Your task to perform on an android device: change the clock display to show seconds Image 0: 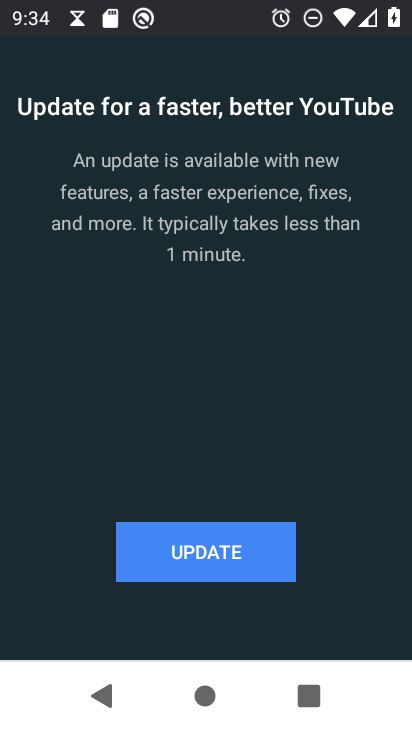
Step 0: press back button
Your task to perform on an android device: change the clock display to show seconds Image 1: 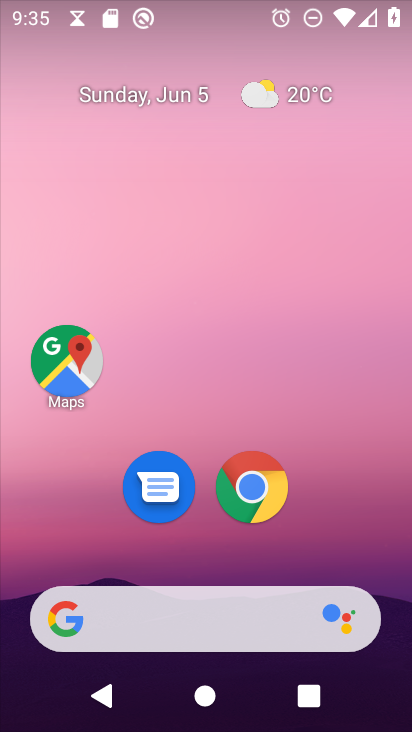
Step 1: drag from (206, 548) to (243, 234)
Your task to perform on an android device: change the clock display to show seconds Image 2: 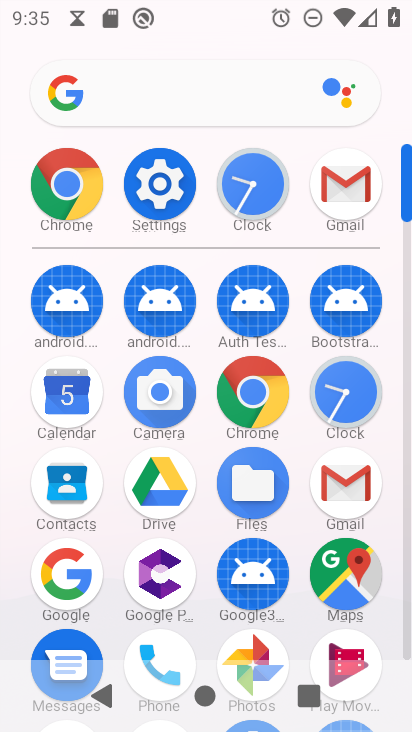
Step 2: click (340, 386)
Your task to perform on an android device: change the clock display to show seconds Image 3: 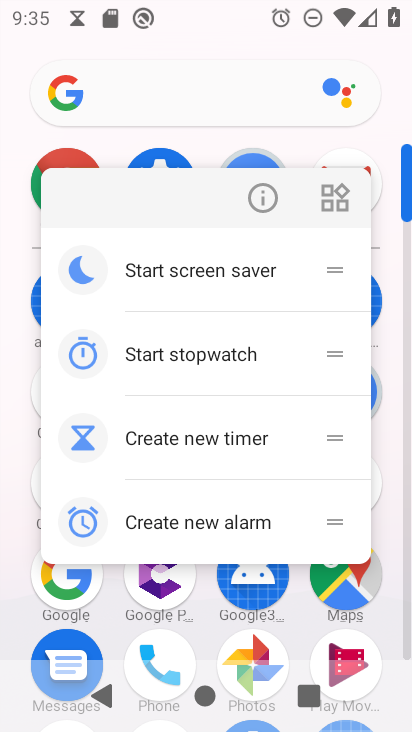
Step 3: click (388, 357)
Your task to perform on an android device: change the clock display to show seconds Image 4: 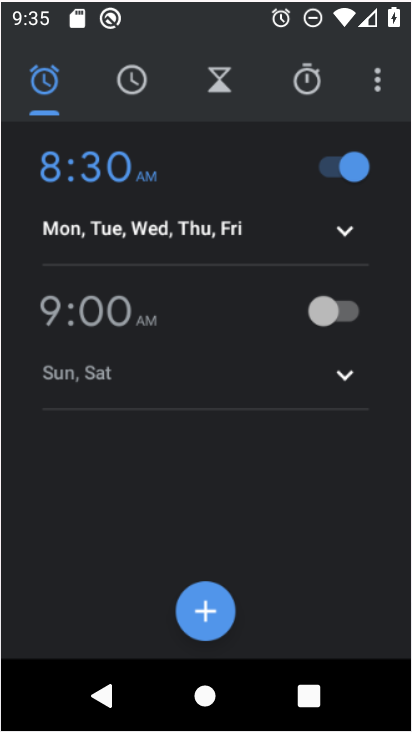
Step 4: click (361, 387)
Your task to perform on an android device: change the clock display to show seconds Image 5: 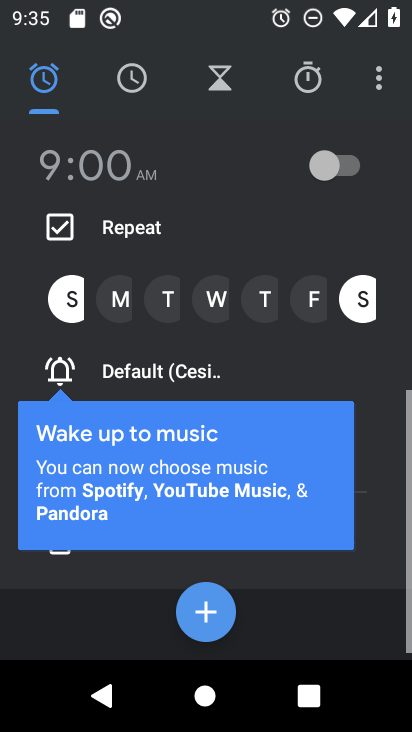
Step 5: click (359, 76)
Your task to perform on an android device: change the clock display to show seconds Image 6: 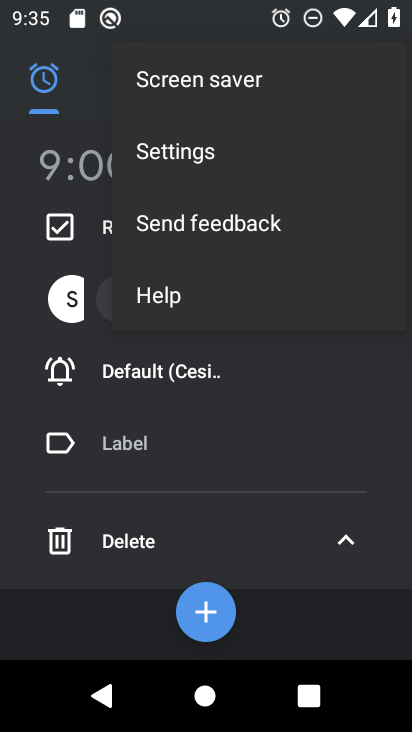
Step 6: click (222, 146)
Your task to perform on an android device: change the clock display to show seconds Image 7: 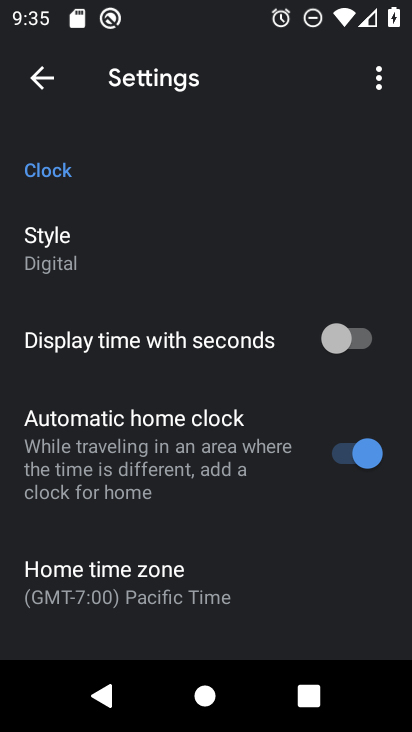
Step 7: click (337, 330)
Your task to perform on an android device: change the clock display to show seconds Image 8: 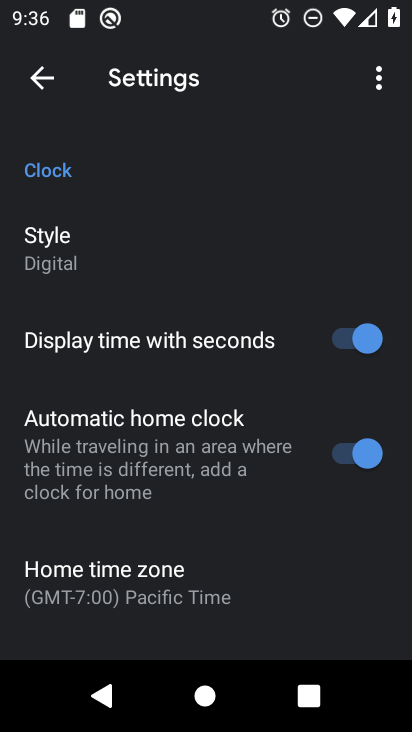
Step 8: task complete